Your task to perform on an android device: Open notification settings Image 0: 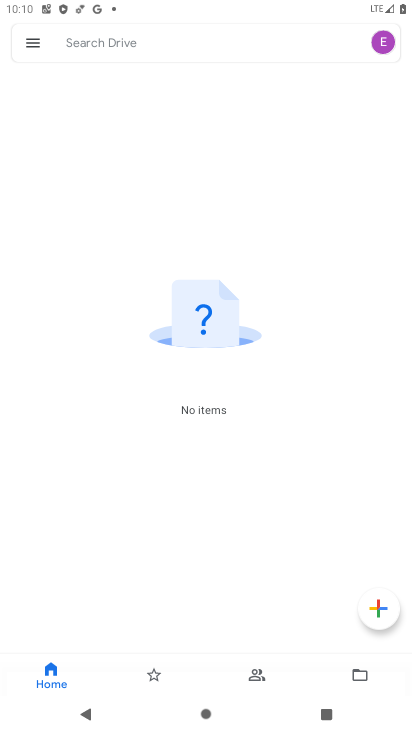
Step 0: press home button
Your task to perform on an android device: Open notification settings Image 1: 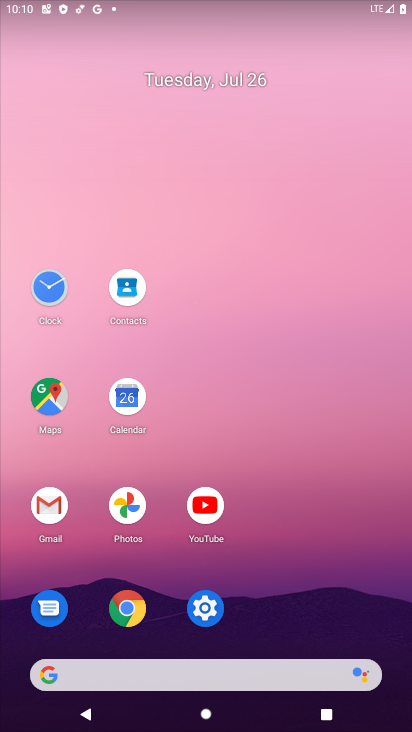
Step 1: click (196, 603)
Your task to perform on an android device: Open notification settings Image 2: 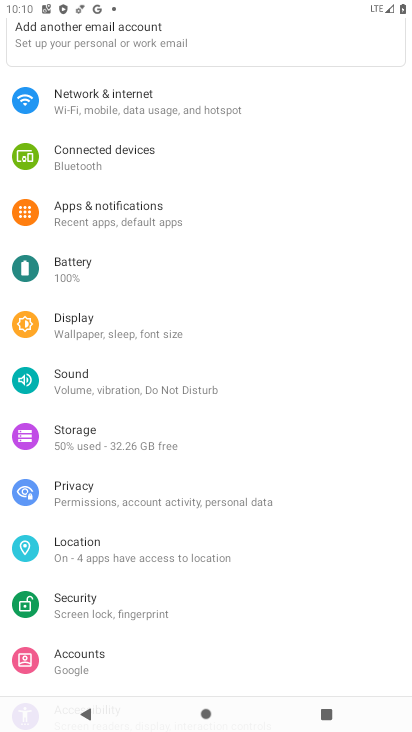
Step 2: click (118, 200)
Your task to perform on an android device: Open notification settings Image 3: 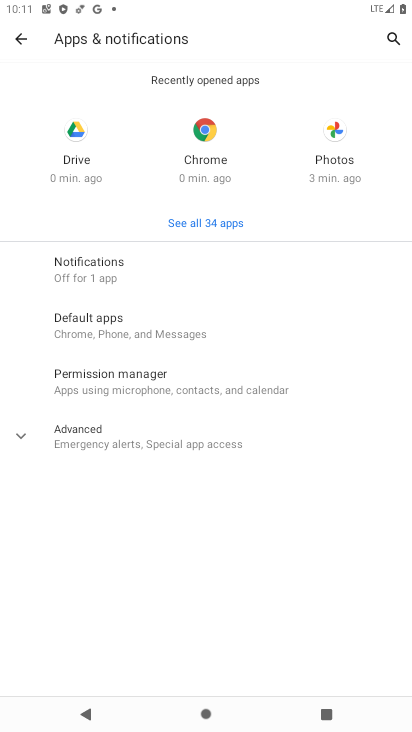
Step 3: task complete